Your task to perform on an android device: Go to privacy settings Image 0: 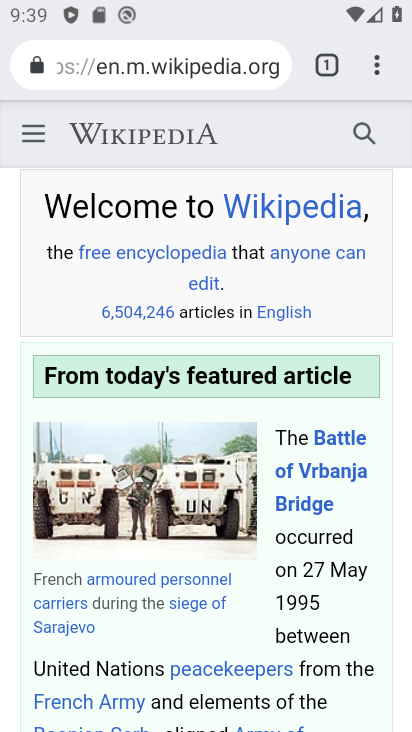
Step 0: press home button
Your task to perform on an android device: Go to privacy settings Image 1: 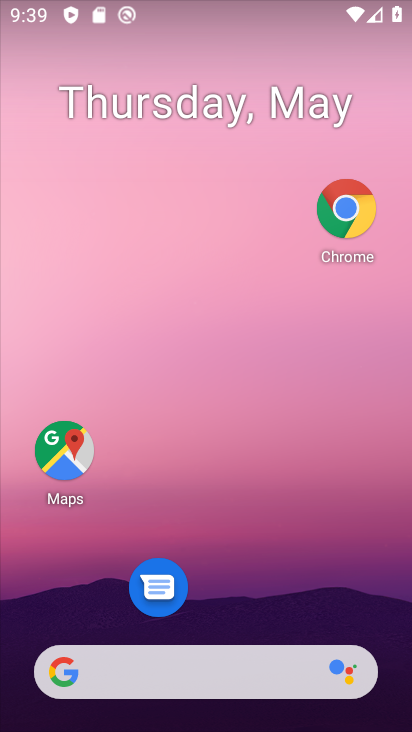
Step 1: drag from (215, 587) to (240, 114)
Your task to perform on an android device: Go to privacy settings Image 2: 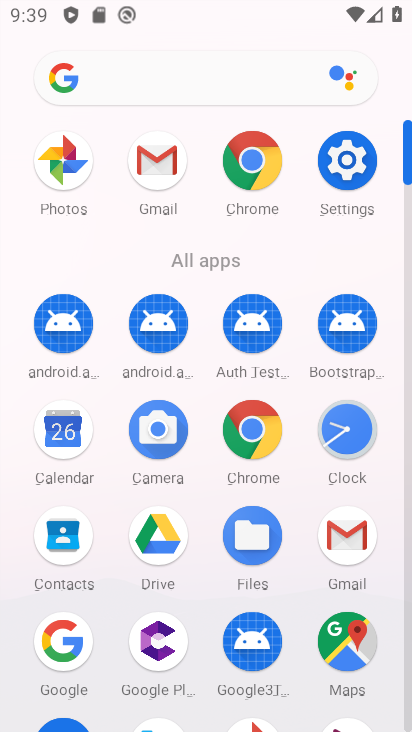
Step 2: click (355, 184)
Your task to perform on an android device: Go to privacy settings Image 3: 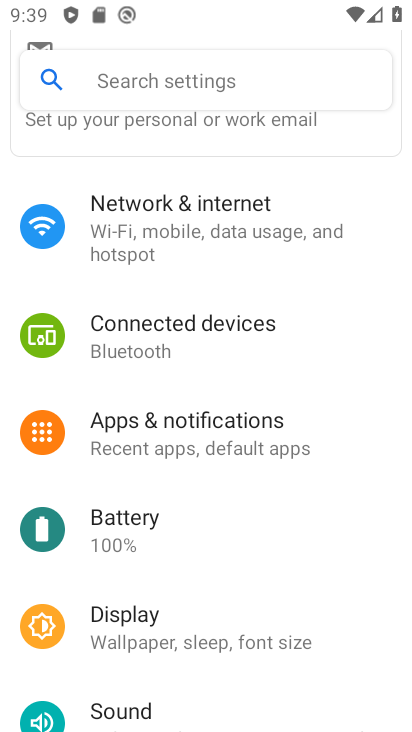
Step 3: drag from (190, 649) to (200, 363)
Your task to perform on an android device: Go to privacy settings Image 4: 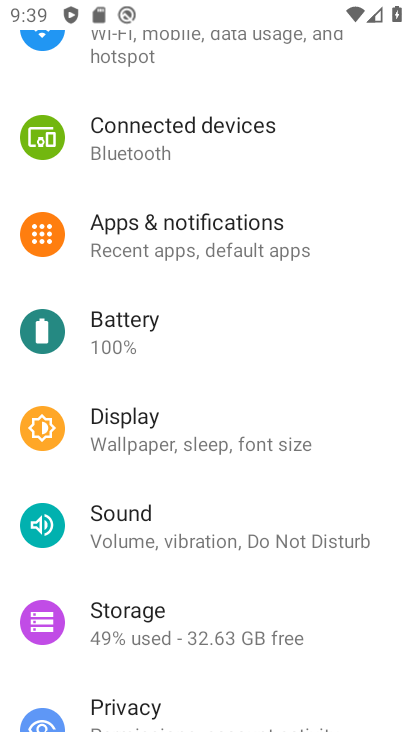
Step 4: click (137, 712)
Your task to perform on an android device: Go to privacy settings Image 5: 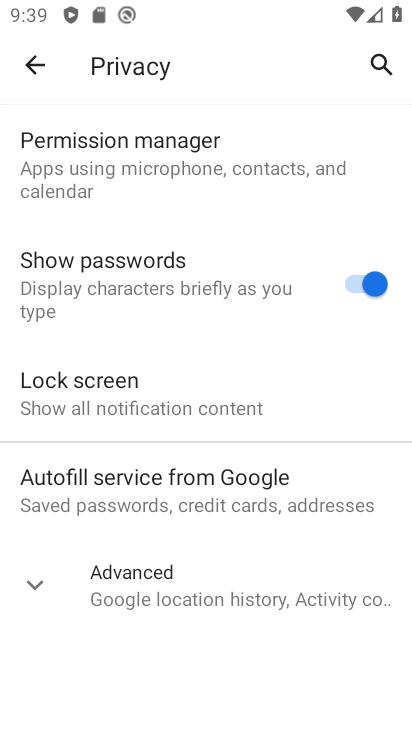
Step 5: task complete